Your task to perform on an android device: open the mobile data screen to see how much data has been used Image 0: 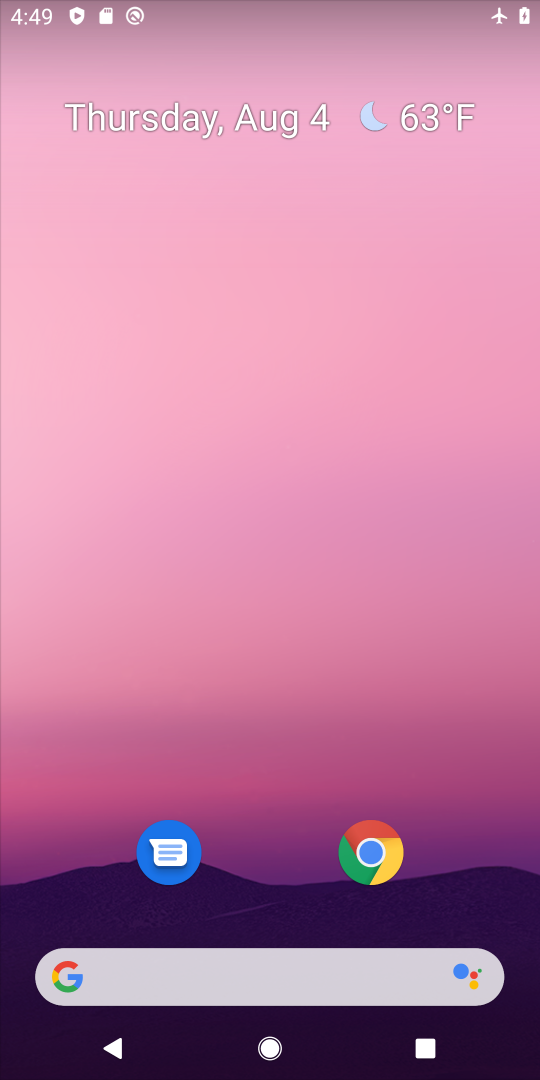
Step 0: drag from (275, 935) to (280, 272)
Your task to perform on an android device: open the mobile data screen to see how much data has been used Image 1: 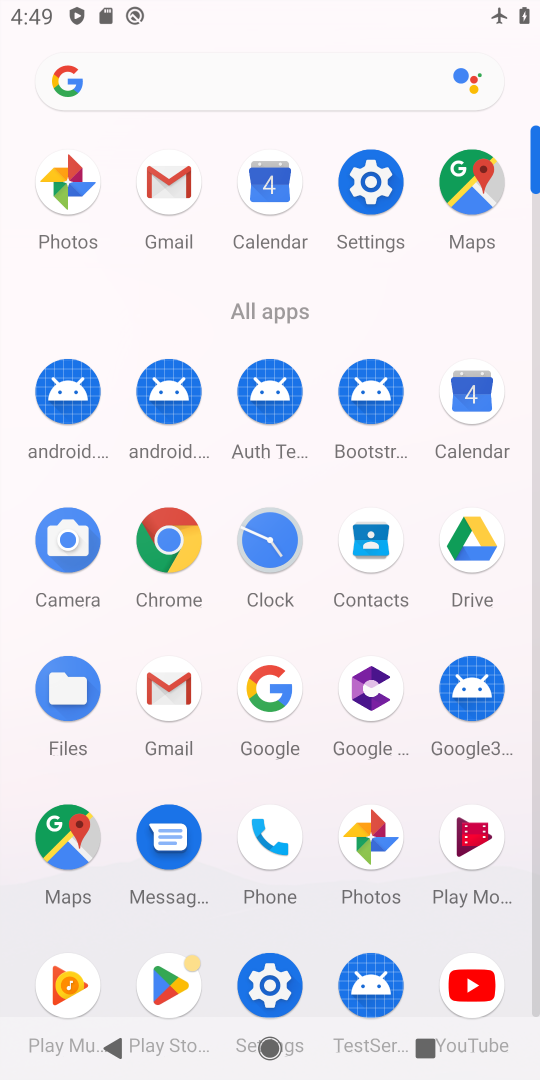
Step 1: click (275, 986)
Your task to perform on an android device: open the mobile data screen to see how much data has been used Image 2: 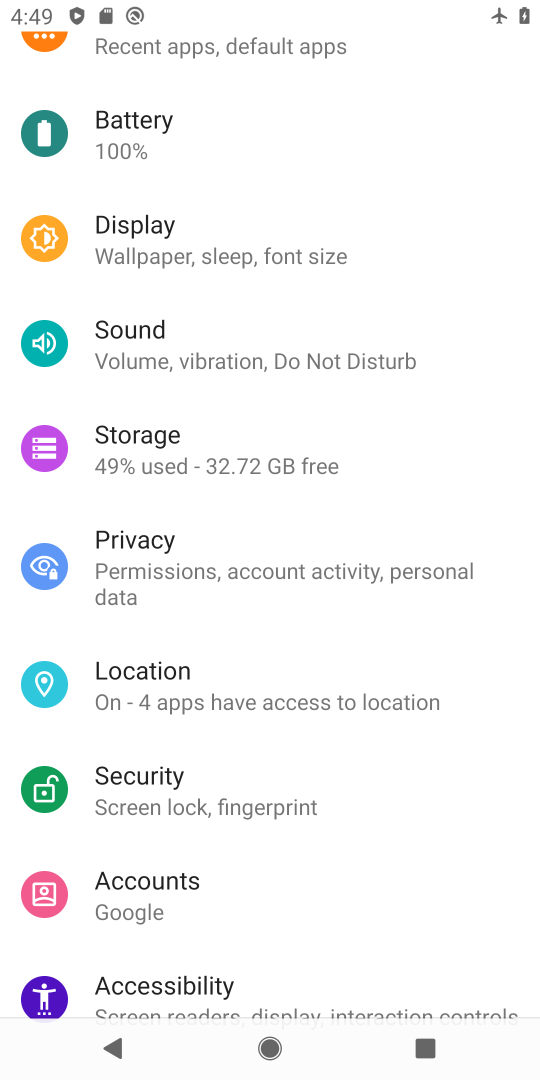
Step 2: drag from (167, 184) to (207, 738)
Your task to perform on an android device: open the mobile data screen to see how much data has been used Image 3: 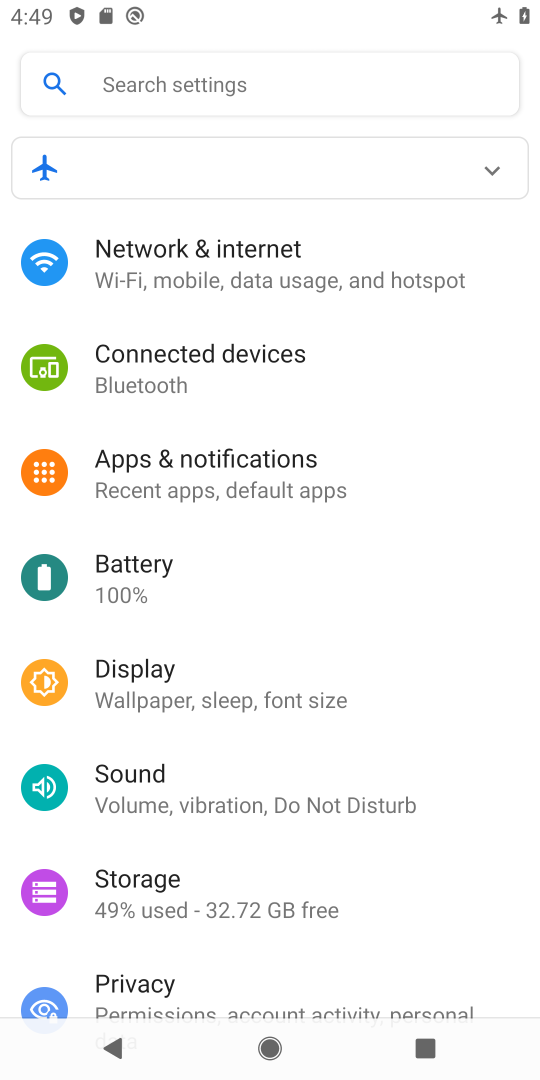
Step 3: click (170, 268)
Your task to perform on an android device: open the mobile data screen to see how much data has been used Image 4: 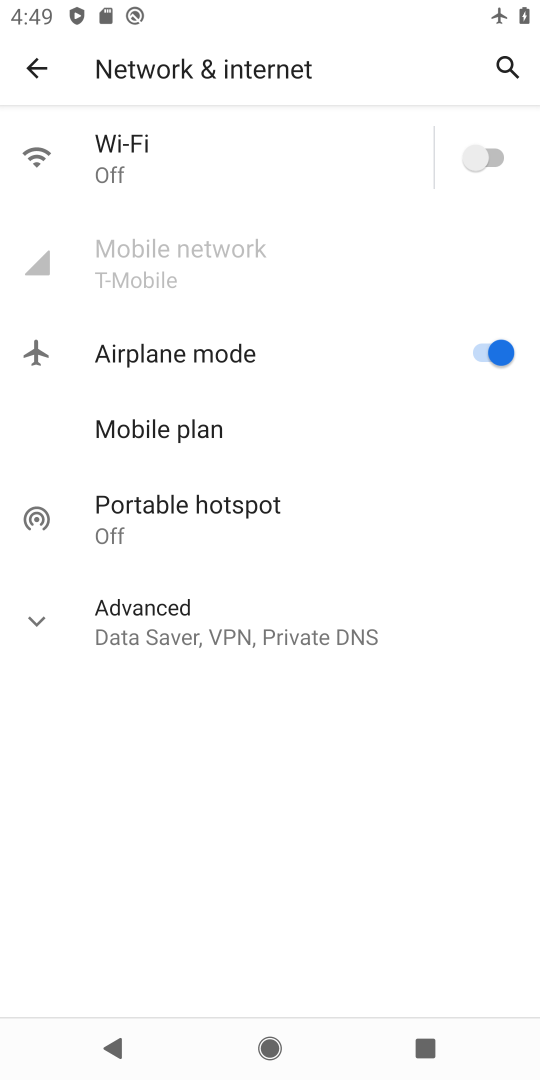
Step 4: click (488, 357)
Your task to perform on an android device: open the mobile data screen to see how much data has been used Image 5: 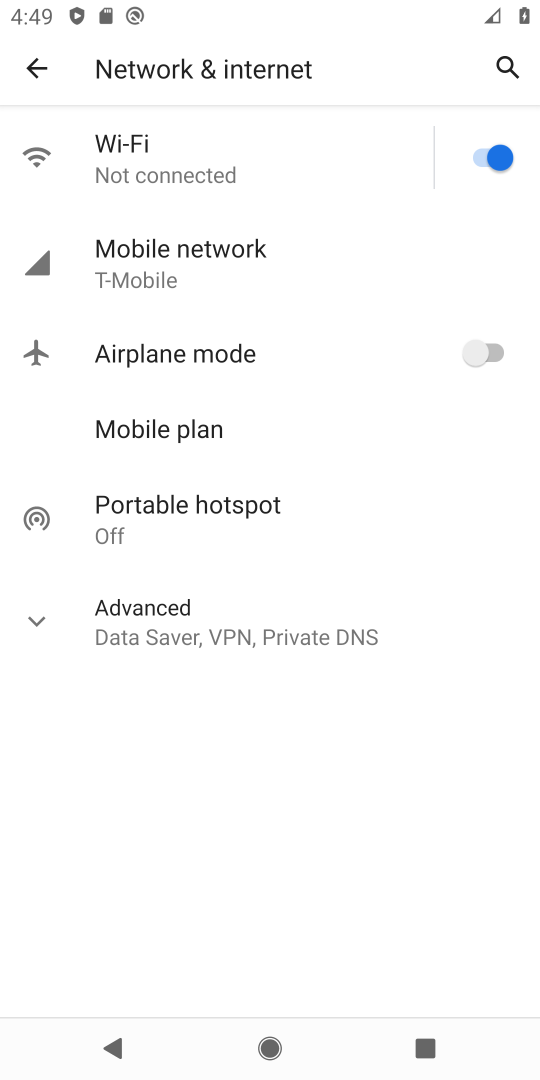
Step 5: click (216, 262)
Your task to perform on an android device: open the mobile data screen to see how much data has been used Image 6: 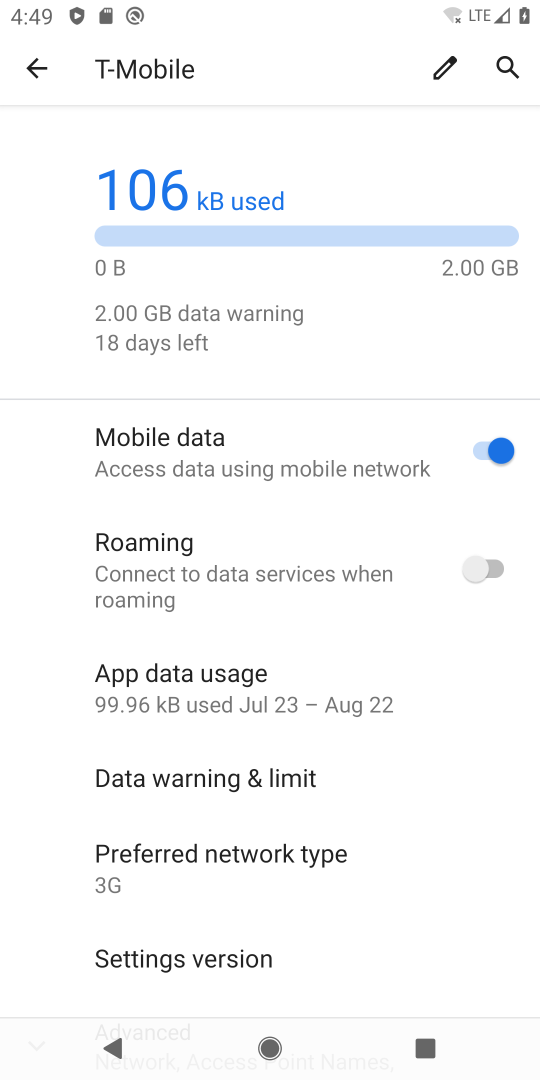
Step 6: click (212, 691)
Your task to perform on an android device: open the mobile data screen to see how much data has been used Image 7: 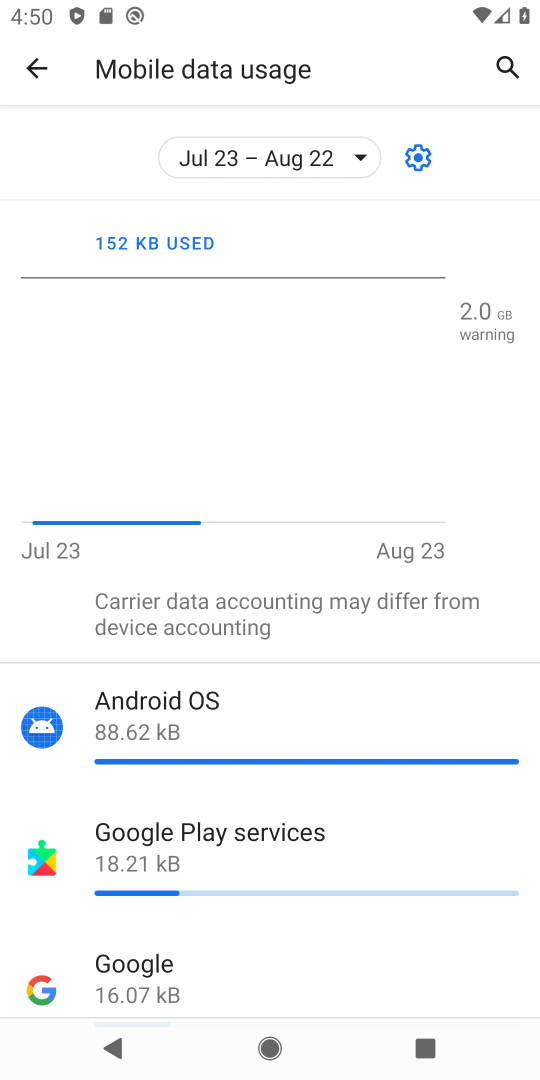
Step 7: task complete